Your task to perform on an android device: turn off picture-in-picture Image 0: 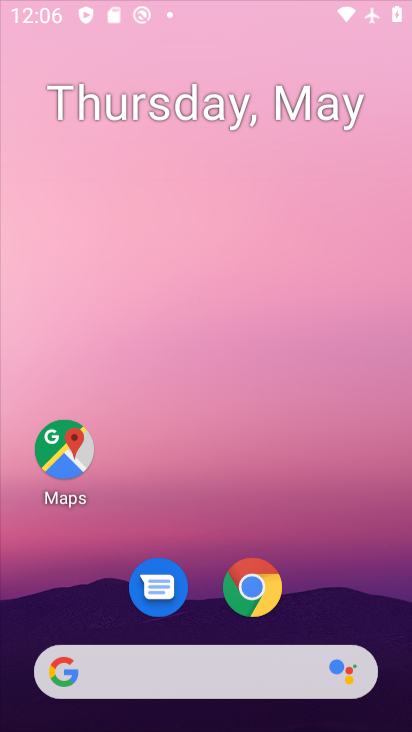
Step 0: drag from (255, 3) to (412, 195)
Your task to perform on an android device: turn off picture-in-picture Image 1: 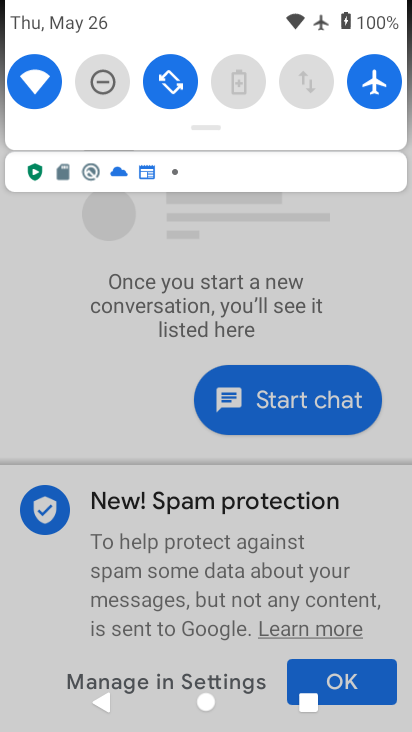
Step 1: press home button
Your task to perform on an android device: turn off picture-in-picture Image 2: 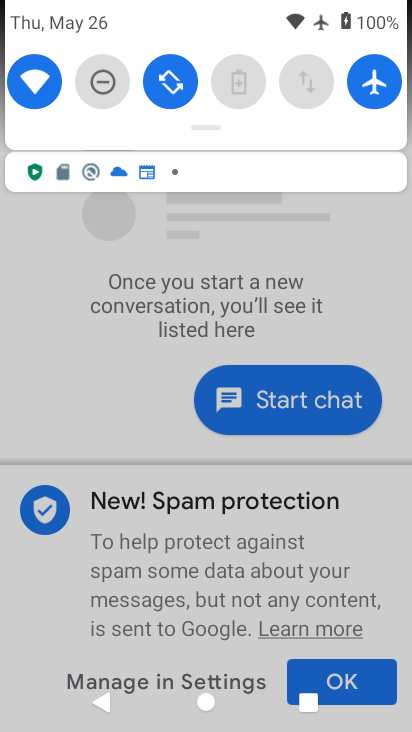
Step 2: click (412, 195)
Your task to perform on an android device: turn off picture-in-picture Image 3: 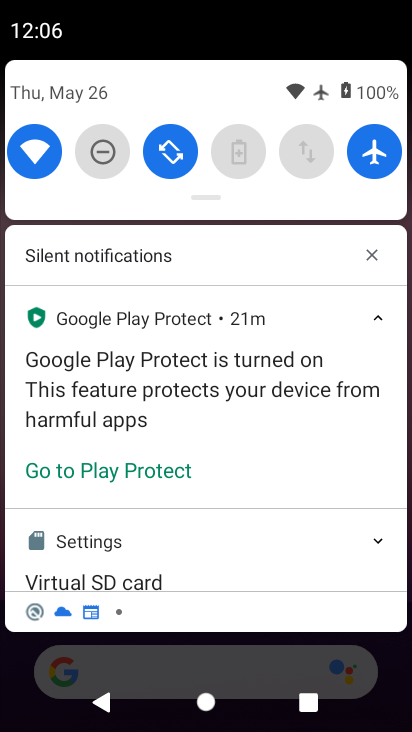
Step 3: press home button
Your task to perform on an android device: turn off picture-in-picture Image 4: 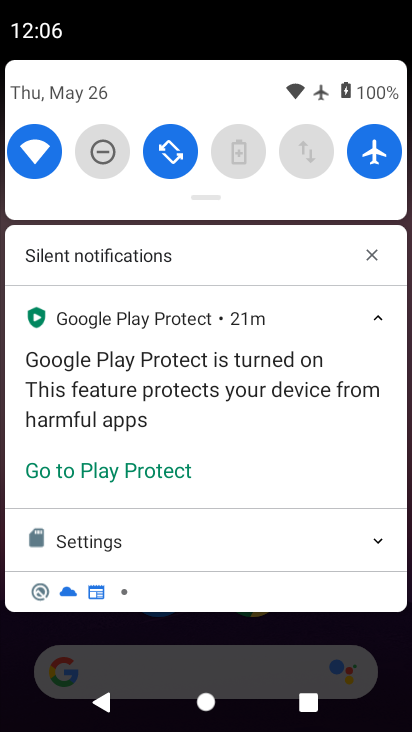
Step 4: click (412, 195)
Your task to perform on an android device: turn off picture-in-picture Image 5: 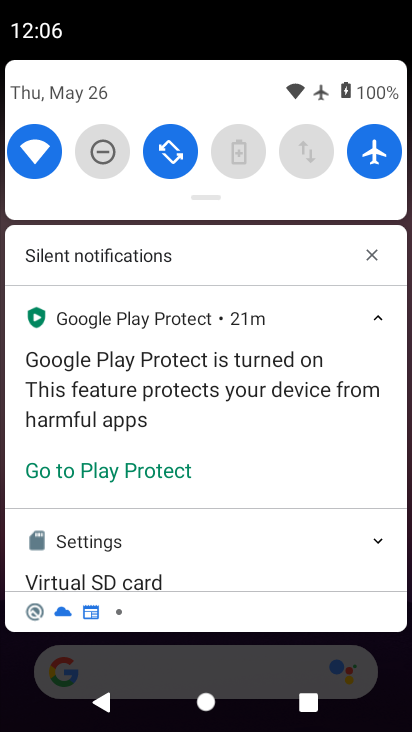
Step 5: press home button
Your task to perform on an android device: turn off picture-in-picture Image 6: 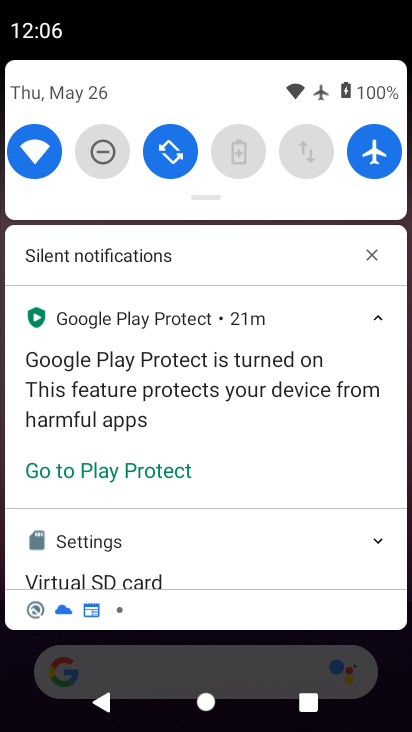
Step 6: drag from (412, 195) to (353, 592)
Your task to perform on an android device: turn off picture-in-picture Image 7: 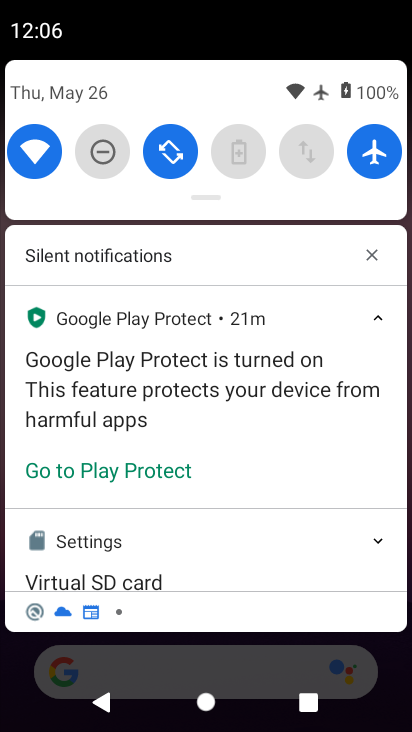
Step 7: drag from (224, 692) to (267, 103)
Your task to perform on an android device: turn off picture-in-picture Image 8: 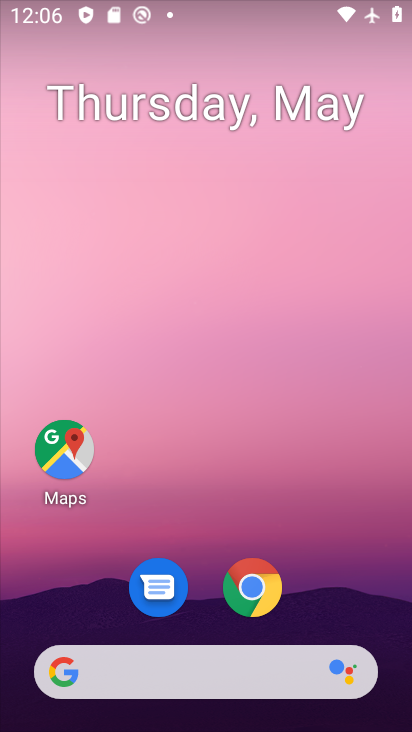
Step 8: drag from (258, 623) to (302, 174)
Your task to perform on an android device: turn off picture-in-picture Image 9: 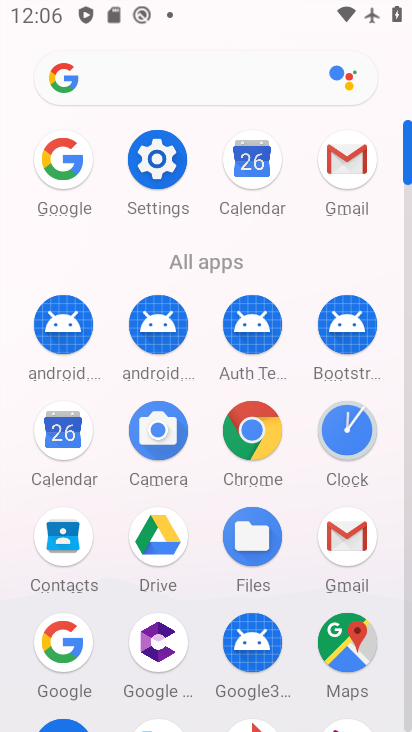
Step 9: click (146, 177)
Your task to perform on an android device: turn off picture-in-picture Image 10: 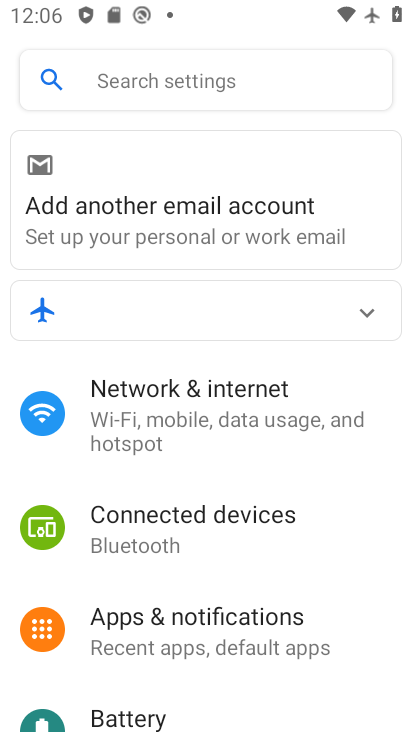
Step 10: click (171, 647)
Your task to perform on an android device: turn off picture-in-picture Image 11: 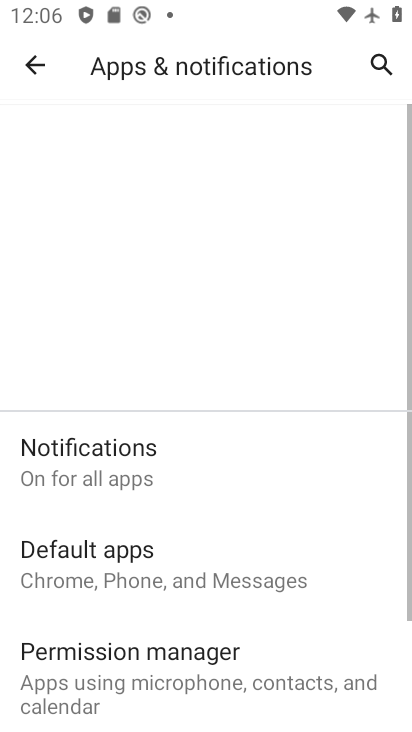
Step 11: drag from (171, 647) to (266, 160)
Your task to perform on an android device: turn off picture-in-picture Image 12: 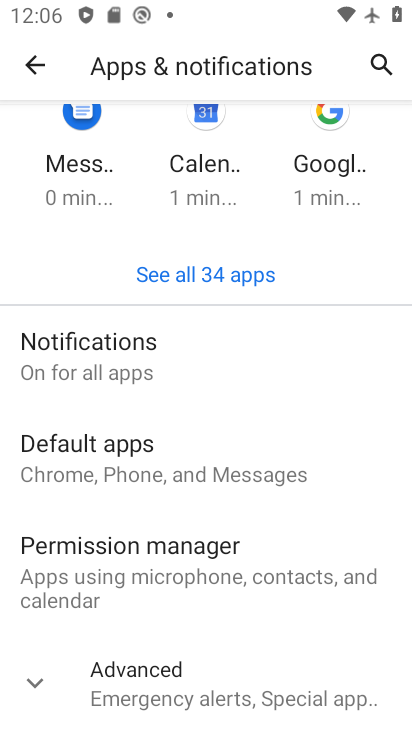
Step 12: click (216, 685)
Your task to perform on an android device: turn off picture-in-picture Image 13: 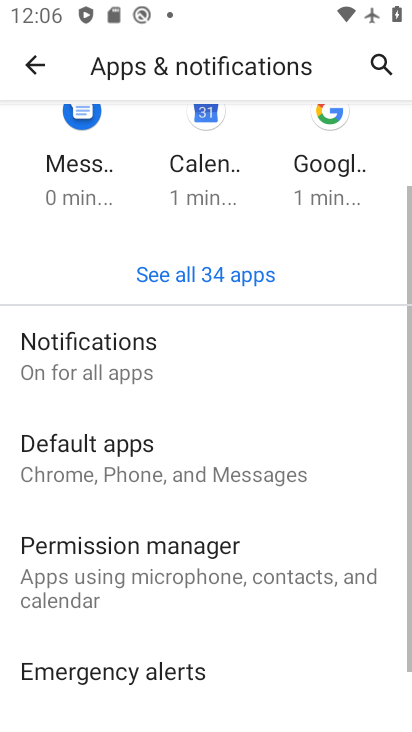
Step 13: drag from (217, 686) to (311, 318)
Your task to perform on an android device: turn off picture-in-picture Image 14: 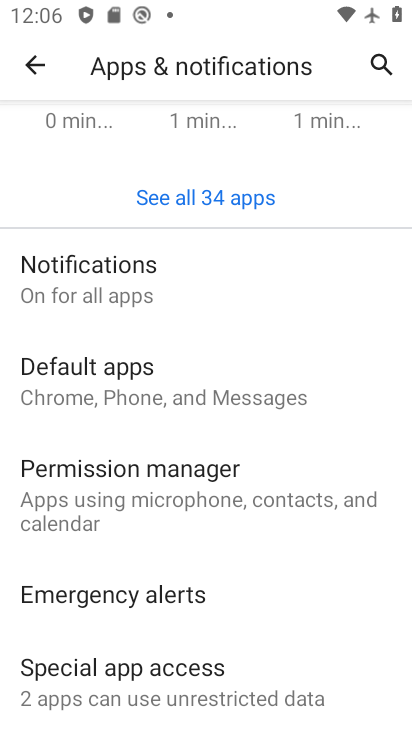
Step 14: click (270, 683)
Your task to perform on an android device: turn off picture-in-picture Image 15: 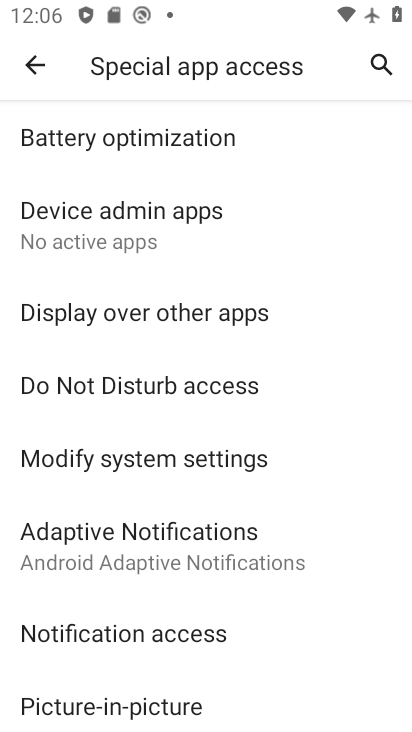
Step 15: drag from (274, 688) to (323, 432)
Your task to perform on an android device: turn off picture-in-picture Image 16: 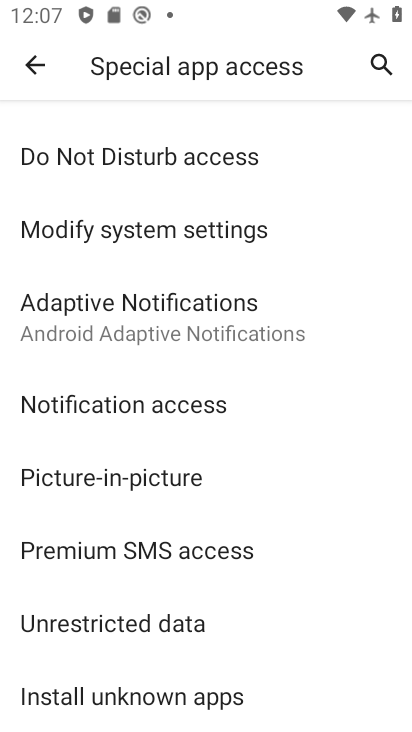
Step 16: click (193, 464)
Your task to perform on an android device: turn off picture-in-picture Image 17: 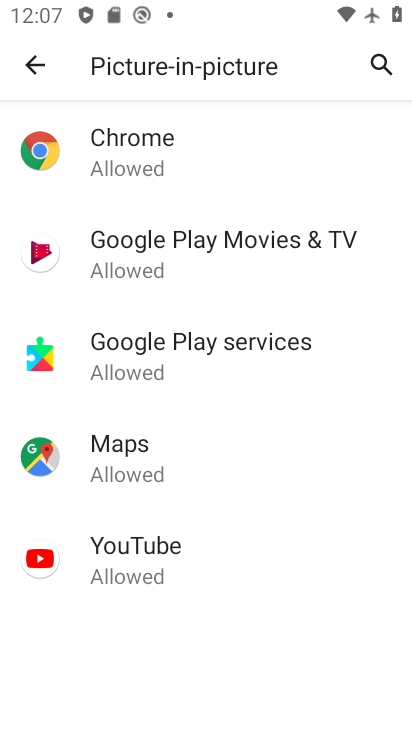
Step 17: click (134, 147)
Your task to perform on an android device: turn off picture-in-picture Image 18: 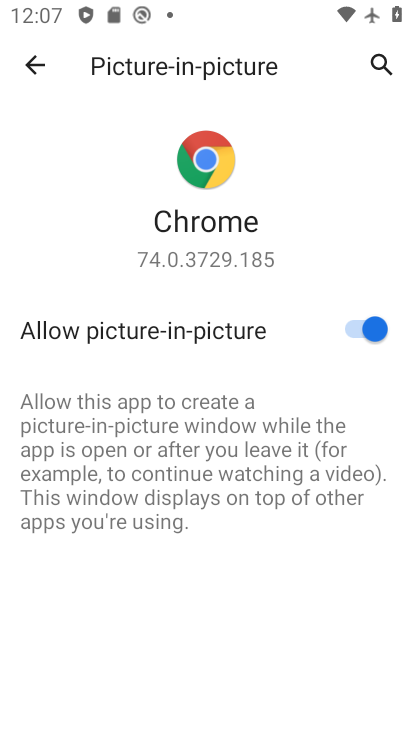
Step 18: click (344, 334)
Your task to perform on an android device: turn off picture-in-picture Image 19: 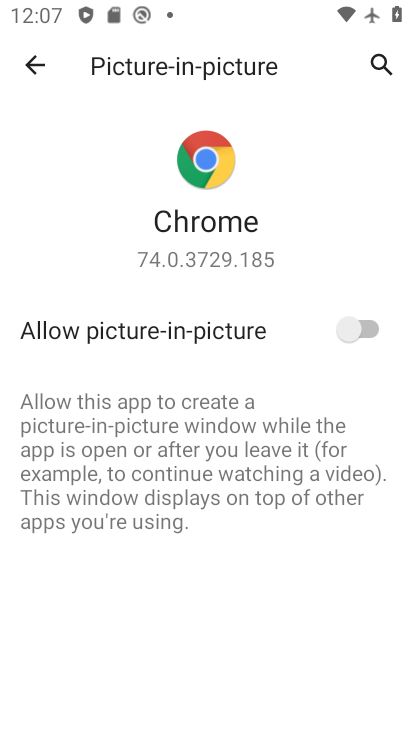
Step 19: press back button
Your task to perform on an android device: turn off picture-in-picture Image 20: 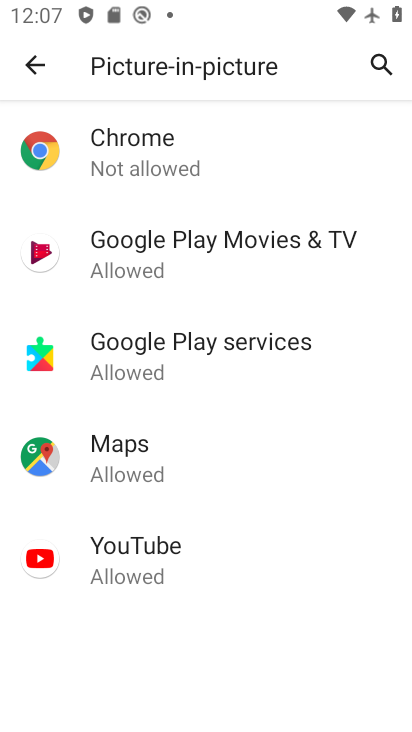
Step 20: click (220, 251)
Your task to perform on an android device: turn off picture-in-picture Image 21: 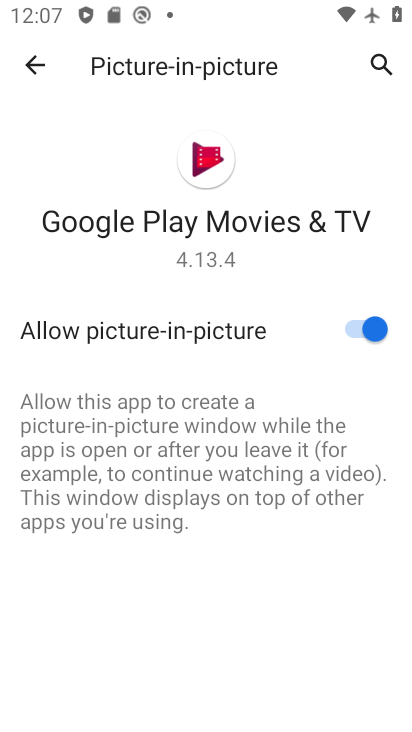
Step 21: click (359, 332)
Your task to perform on an android device: turn off picture-in-picture Image 22: 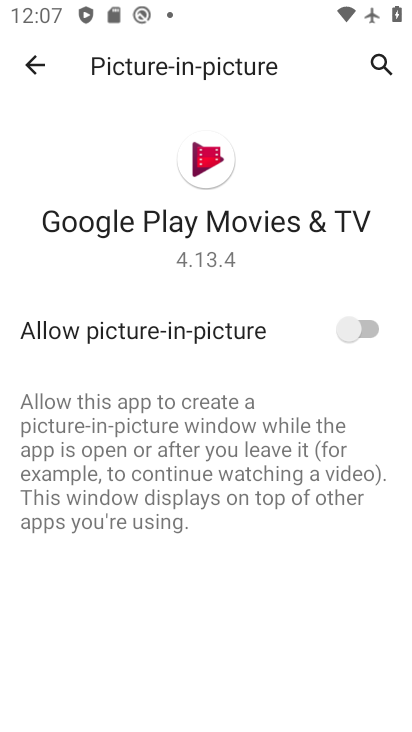
Step 22: press back button
Your task to perform on an android device: turn off picture-in-picture Image 23: 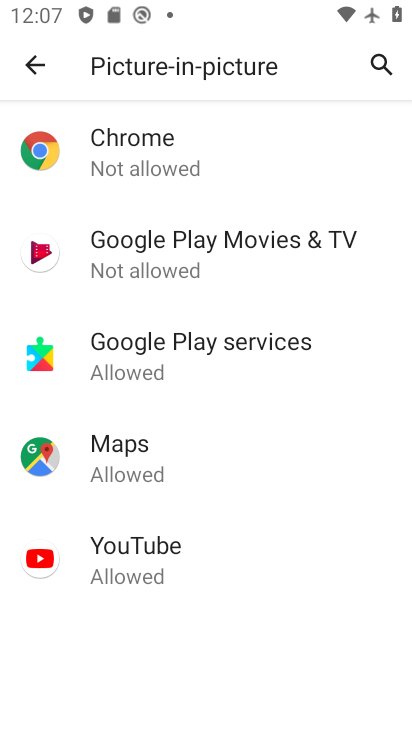
Step 23: click (302, 351)
Your task to perform on an android device: turn off picture-in-picture Image 24: 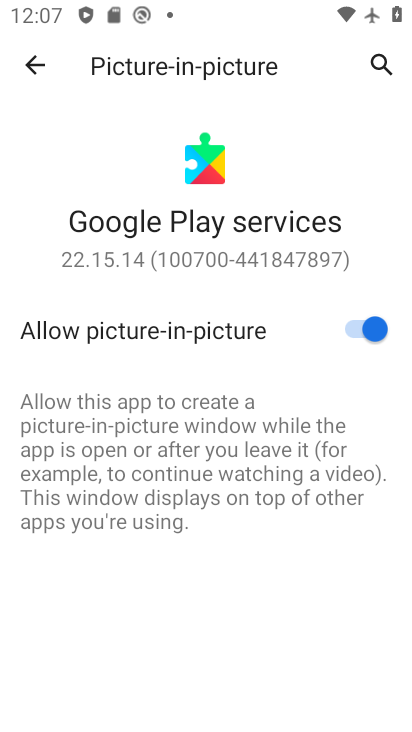
Step 24: click (360, 321)
Your task to perform on an android device: turn off picture-in-picture Image 25: 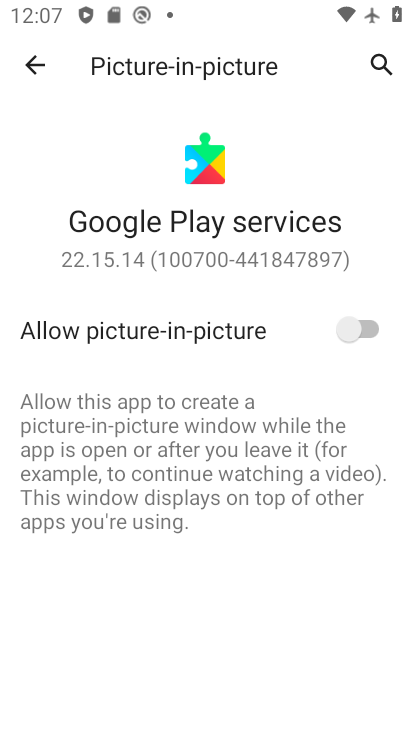
Step 25: press back button
Your task to perform on an android device: turn off picture-in-picture Image 26: 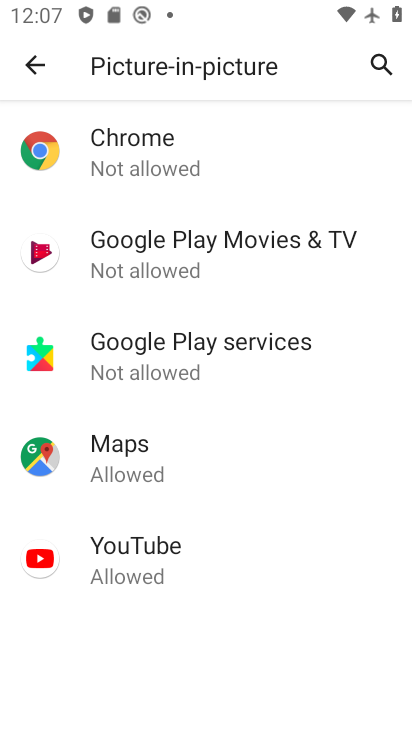
Step 26: click (298, 491)
Your task to perform on an android device: turn off picture-in-picture Image 27: 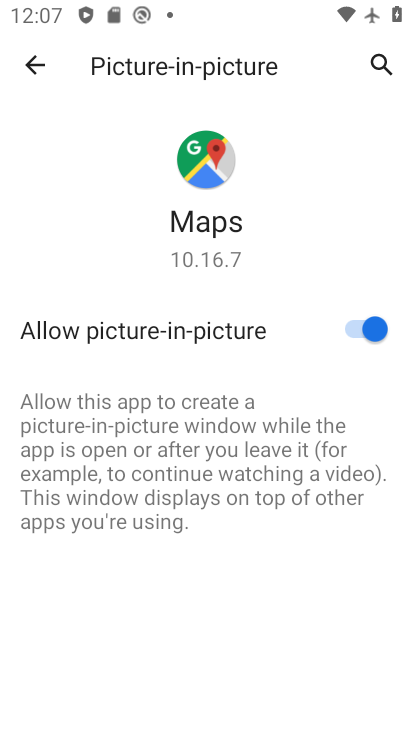
Step 27: click (375, 332)
Your task to perform on an android device: turn off picture-in-picture Image 28: 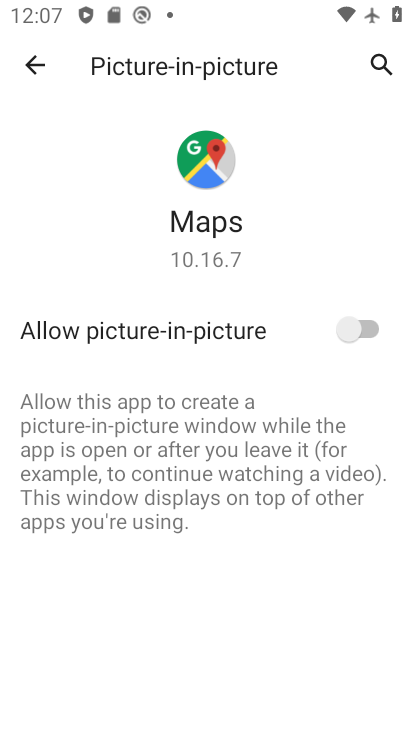
Step 28: press back button
Your task to perform on an android device: turn off picture-in-picture Image 29: 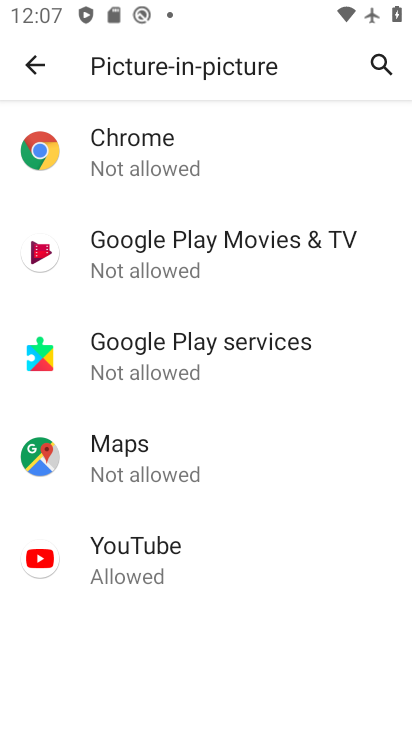
Step 29: click (319, 595)
Your task to perform on an android device: turn off picture-in-picture Image 30: 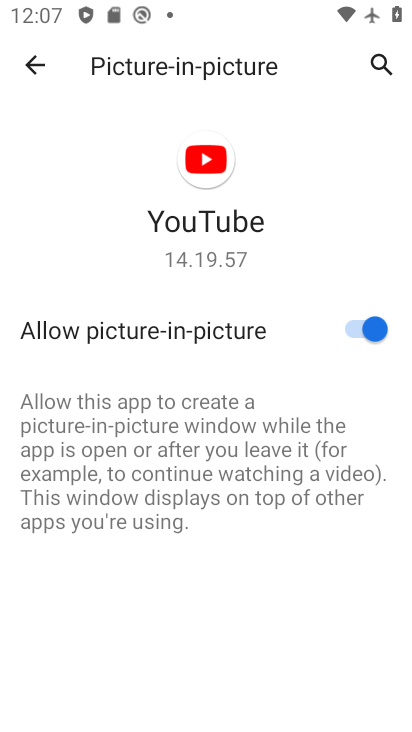
Step 30: click (357, 324)
Your task to perform on an android device: turn off picture-in-picture Image 31: 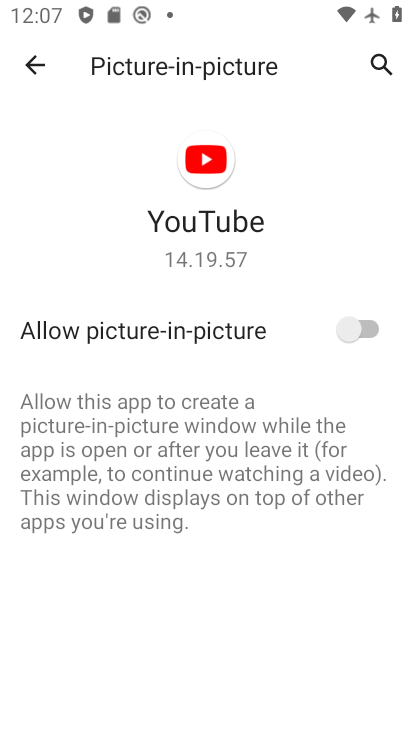
Step 31: task complete